Your task to perform on an android device: What is the recent news? Image 0: 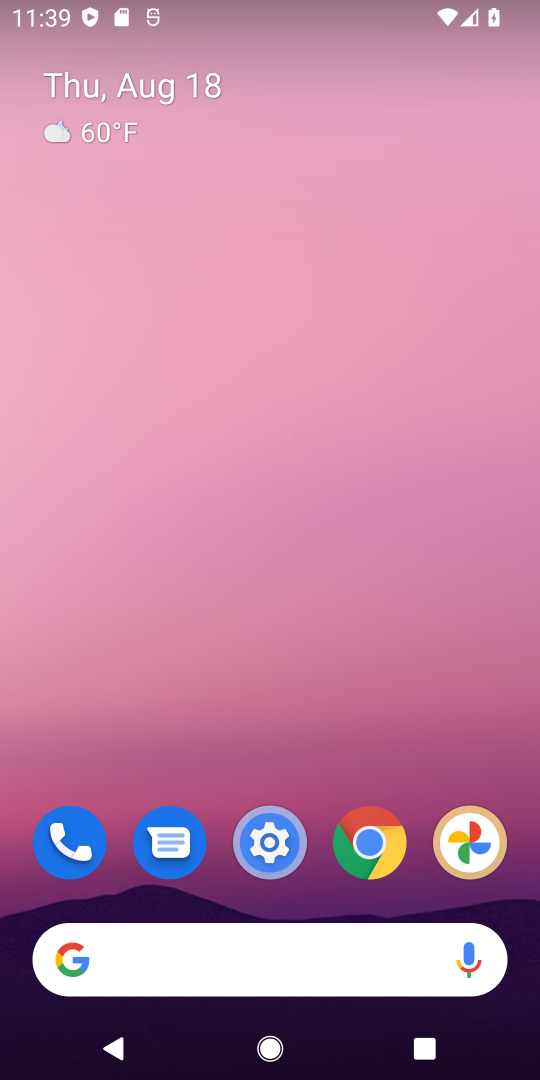
Step 0: click (335, 986)
Your task to perform on an android device: What is the recent news? Image 1: 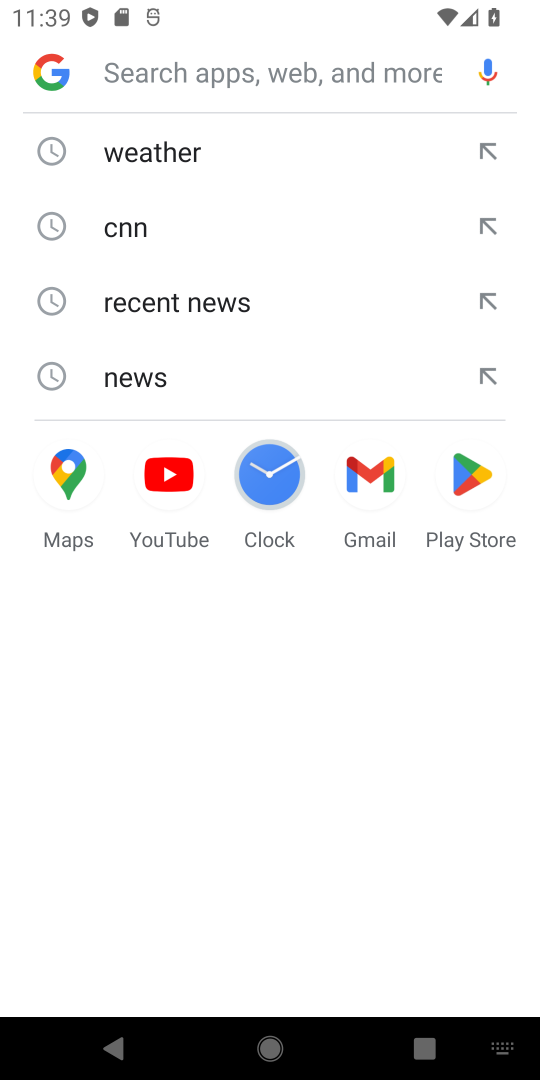
Step 1: click (189, 308)
Your task to perform on an android device: What is the recent news? Image 2: 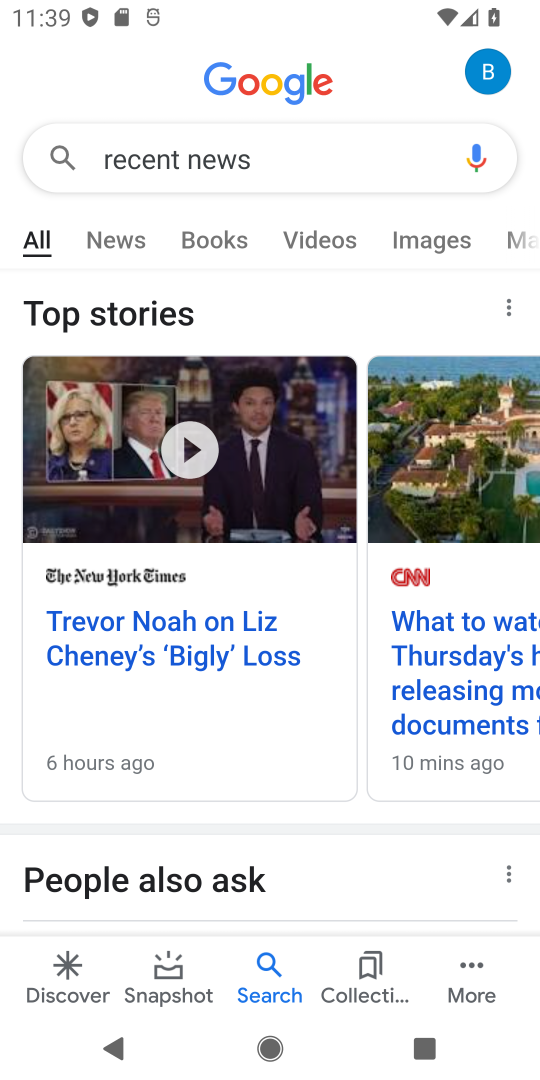
Step 2: task complete